Your task to perform on an android device: Go to display settings Image 0: 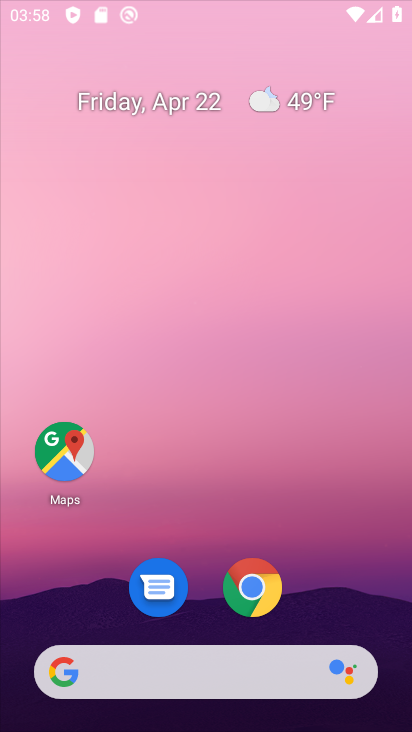
Step 0: drag from (383, 368) to (364, 1)
Your task to perform on an android device: Go to display settings Image 1: 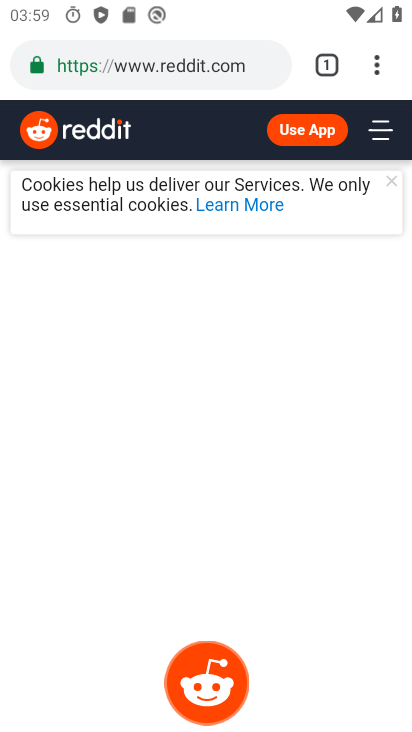
Step 1: press home button
Your task to perform on an android device: Go to display settings Image 2: 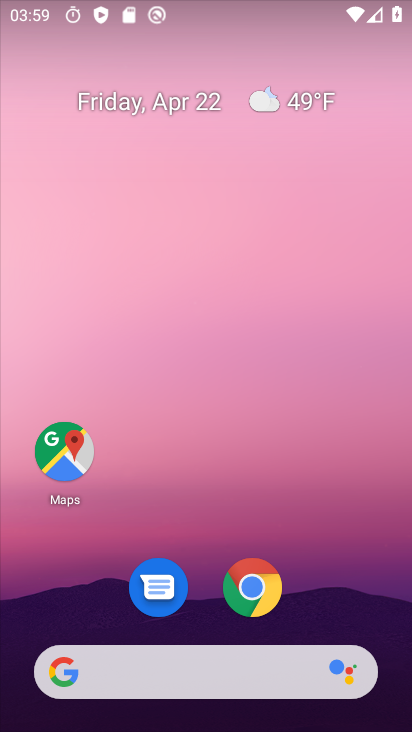
Step 2: drag from (374, 620) to (368, 5)
Your task to perform on an android device: Go to display settings Image 3: 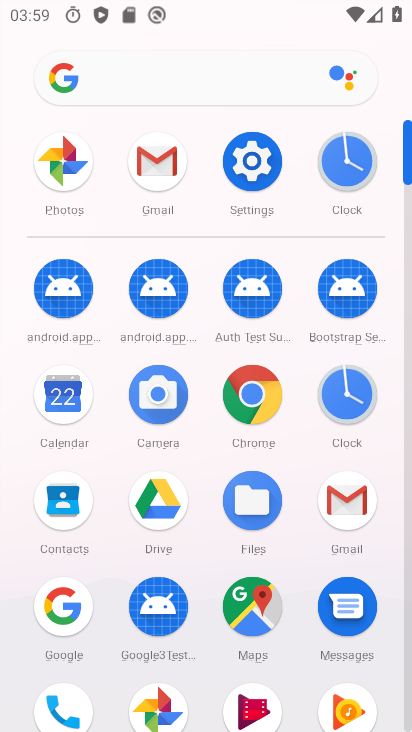
Step 3: click (240, 163)
Your task to perform on an android device: Go to display settings Image 4: 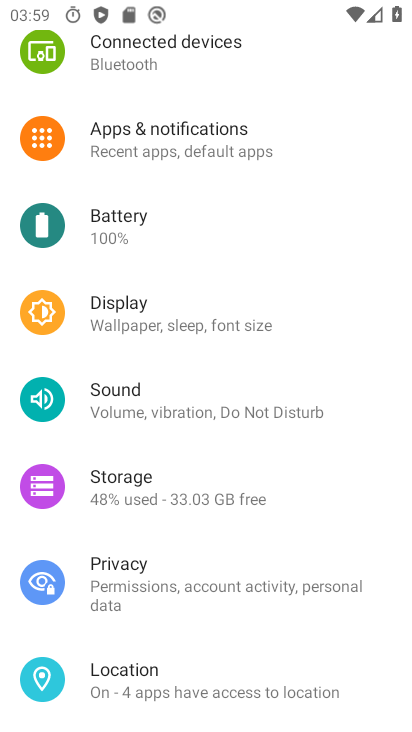
Step 4: click (113, 324)
Your task to perform on an android device: Go to display settings Image 5: 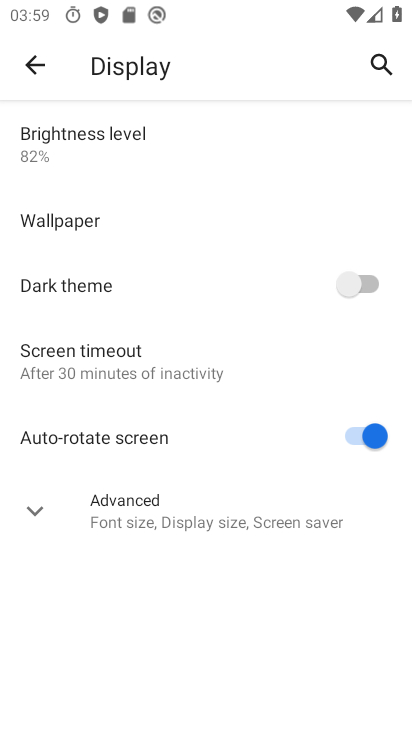
Step 5: click (34, 517)
Your task to perform on an android device: Go to display settings Image 6: 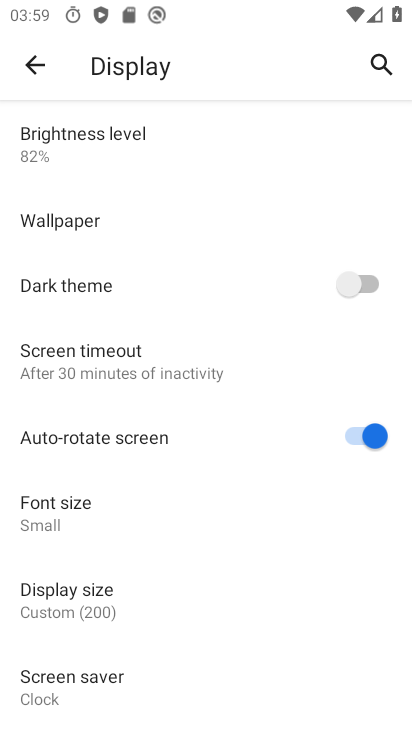
Step 6: task complete